Your task to perform on an android device: Go to location settings Image 0: 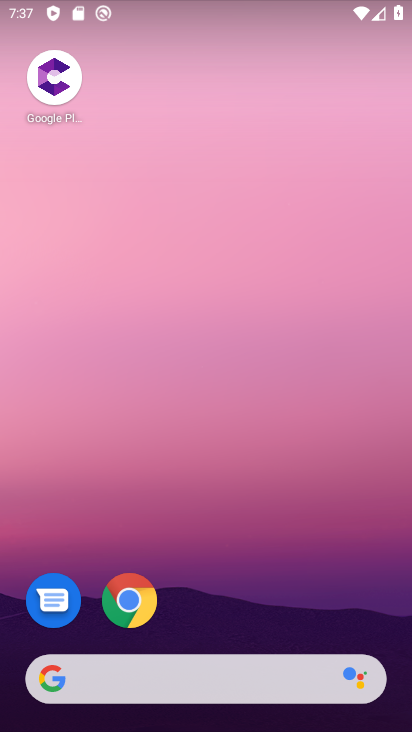
Step 0: drag from (225, 650) to (294, 260)
Your task to perform on an android device: Go to location settings Image 1: 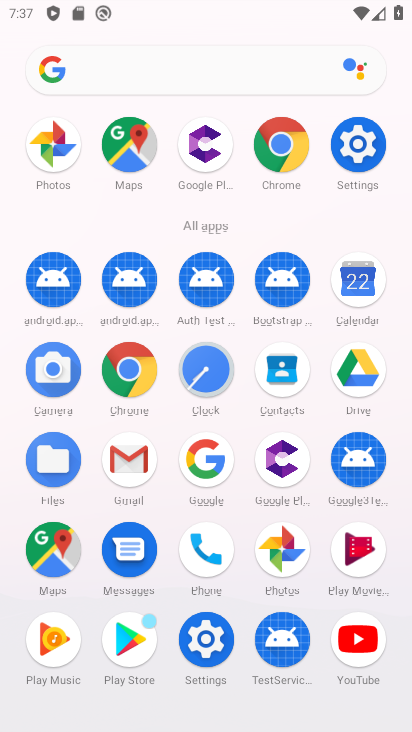
Step 1: click (356, 148)
Your task to perform on an android device: Go to location settings Image 2: 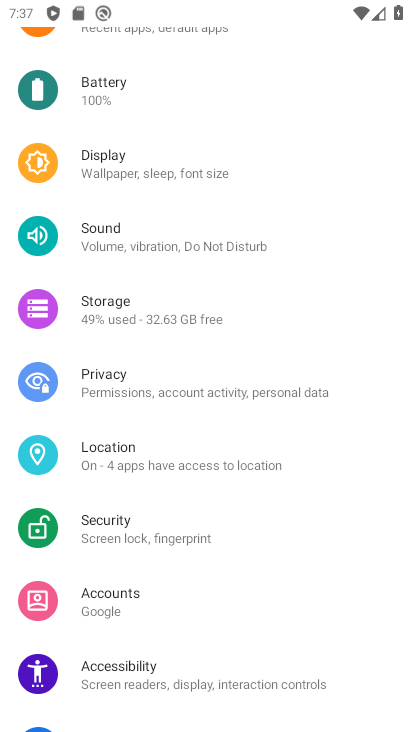
Step 2: click (118, 462)
Your task to perform on an android device: Go to location settings Image 3: 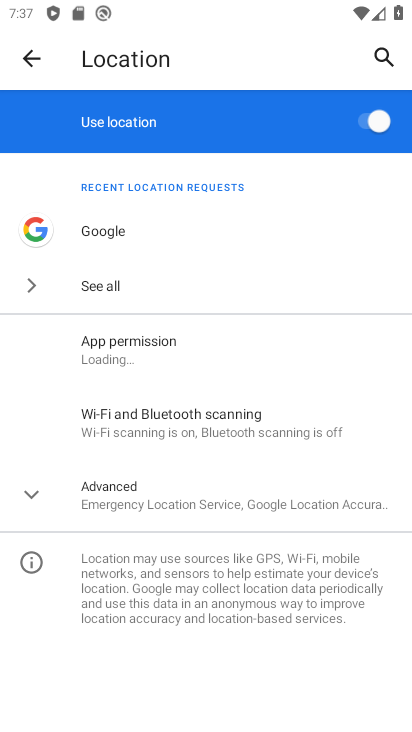
Step 3: click (99, 480)
Your task to perform on an android device: Go to location settings Image 4: 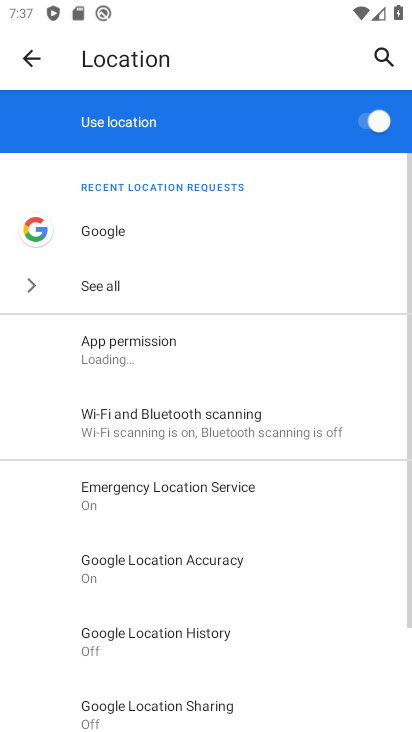
Step 4: task complete